Your task to perform on an android device: What's the weather today? Image 0: 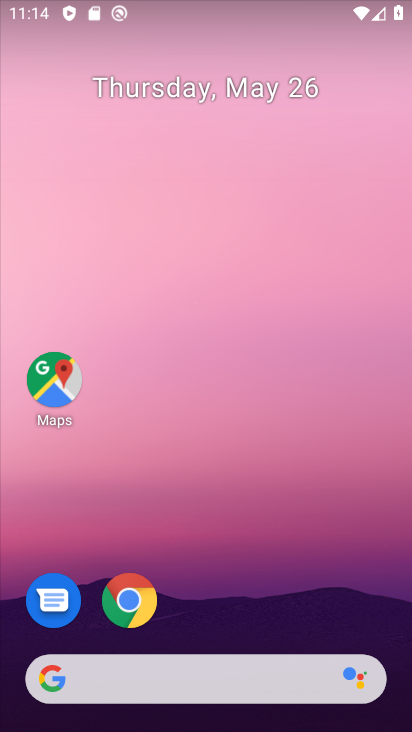
Step 0: click (93, 682)
Your task to perform on an android device: What's the weather today? Image 1: 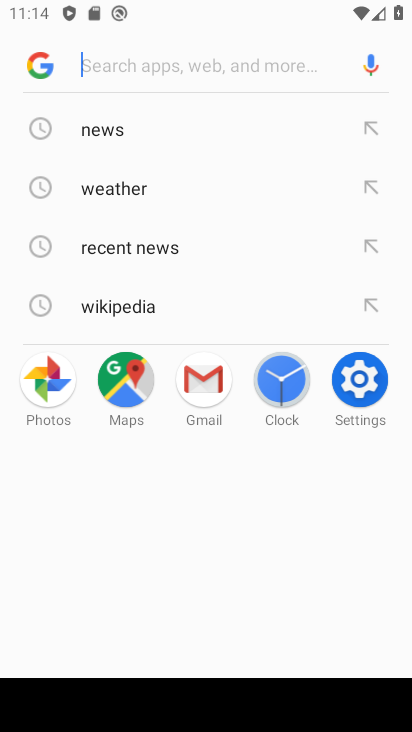
Step 1: click (215, 176)
Your task to perform on an android device: What's the weather today? Image 2: 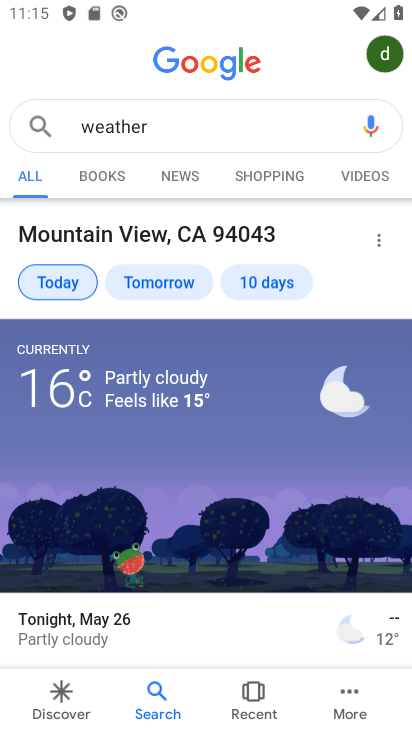
Step 2: task complete